Your task to perform on an android device: change the upload size in google photos Image 0: 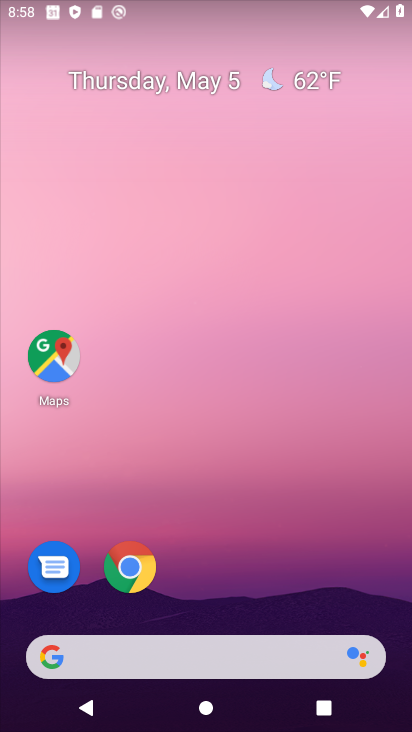
Step 0: drag from (220, 729) to (222, 175)
Your task to perform on an android device: change the upload size in google photos Image 1: 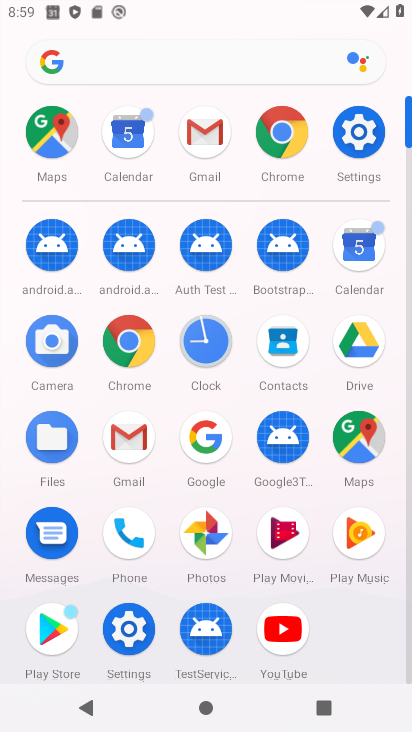
Step 1: click (204, 539)
Your task to perform on an android device: change the upload size in google photos Image 2: 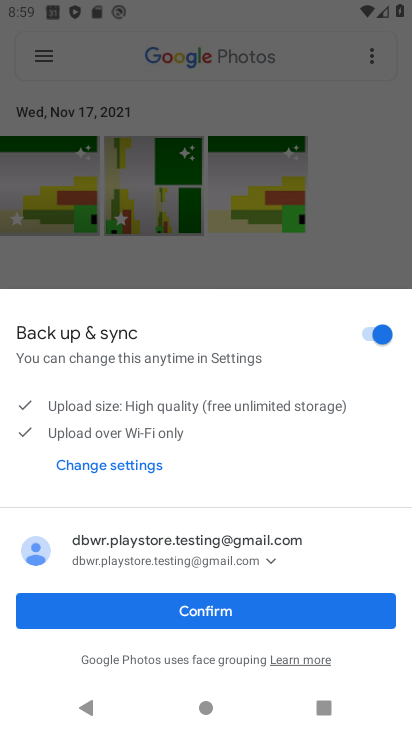
Step 2: click (216, 607)
Your task to perform on an android device: change the upload size in google photos Image 3: 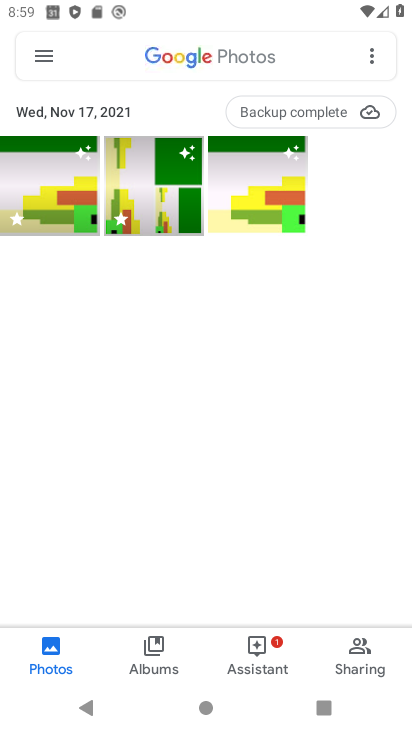
Step 3: click (34, 56)
Your task to perform on an android device: change the upload size in google photos Image 4: 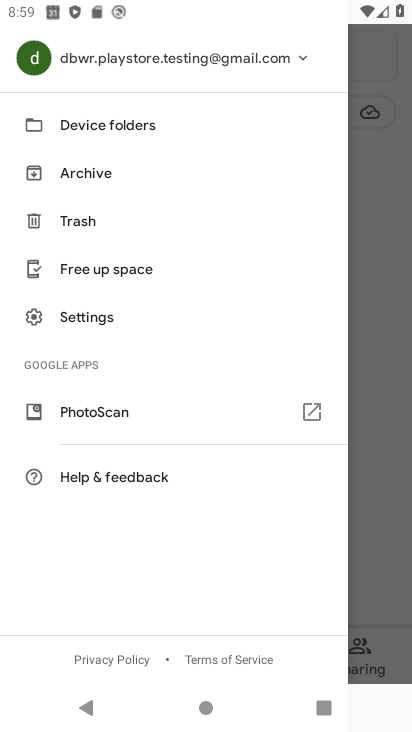
Step 4: click (87, 313)
Your task to perform on an android device: change the upload size in google photos Image 5: 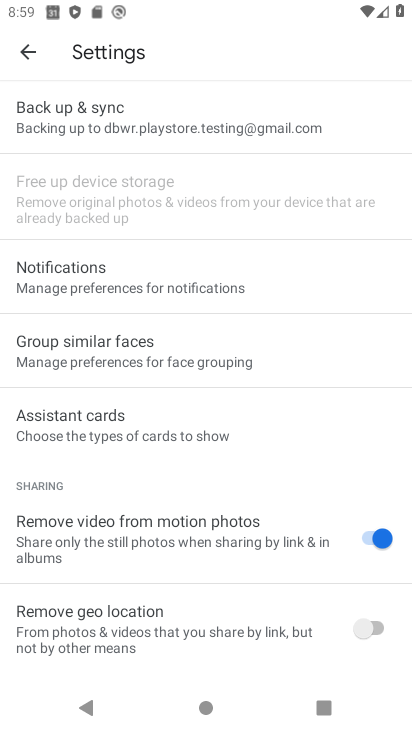
Step 5: click (95, 120)
Your task to perform on an android device: change the upload size in google photos Image 6: 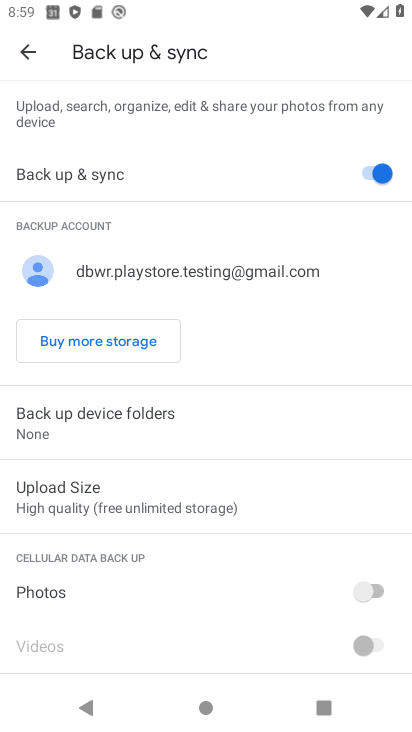
Step 6: click (102, 497)
Your task to perform on an android device: change the upload size in google photos Image 7: 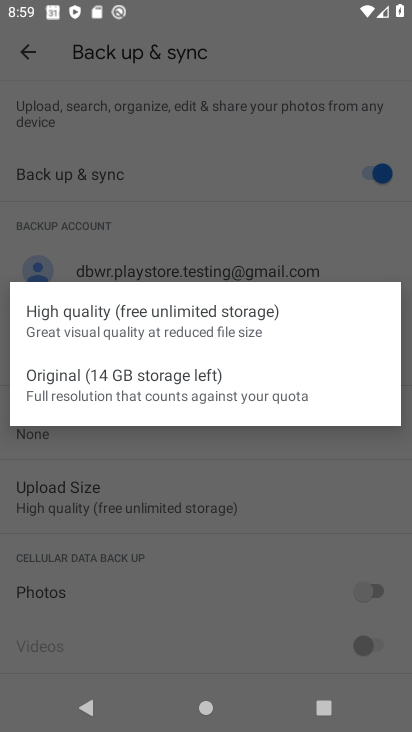
Step 7: click (80, 381)
Your task to perform on an android device: change the upload size in google photos Image 8: 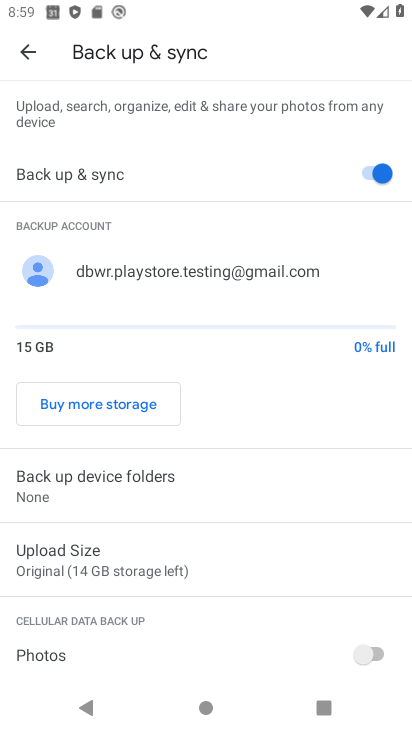
Step 8: task complete